Your task to perform on an android device: toggle notifications settings in the gmail app Image 0: 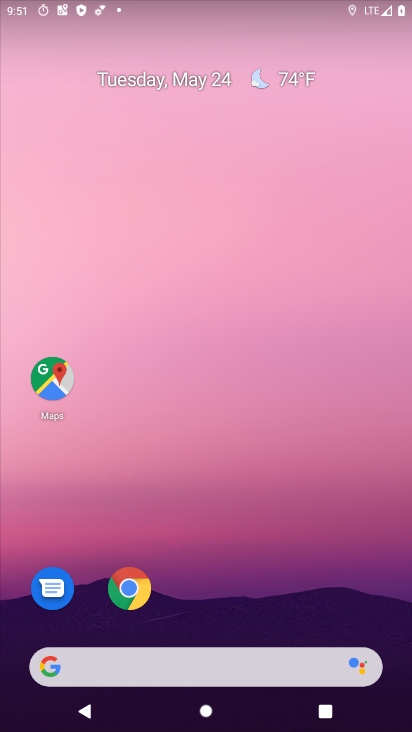
Step 0: drag from (204, 555) to (151, 24)
Your task to perform on an android device: toggle notifications settings in the gmail app Image 1: 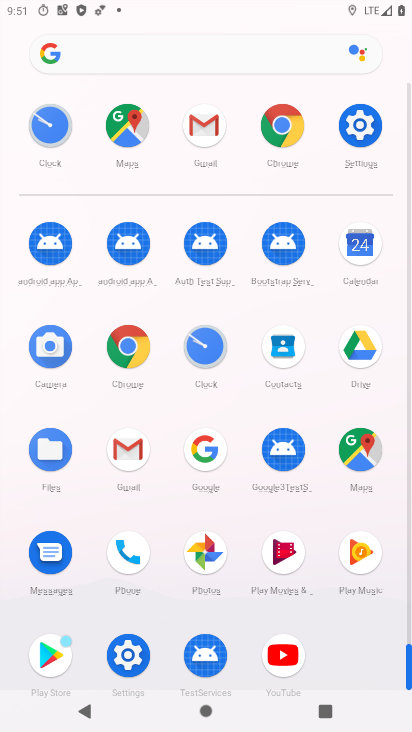
Step 1: drag from (5, 574) to (5, 240)
Your task to perform on an android device: toggle notifications settings in the gmail app Image 2: 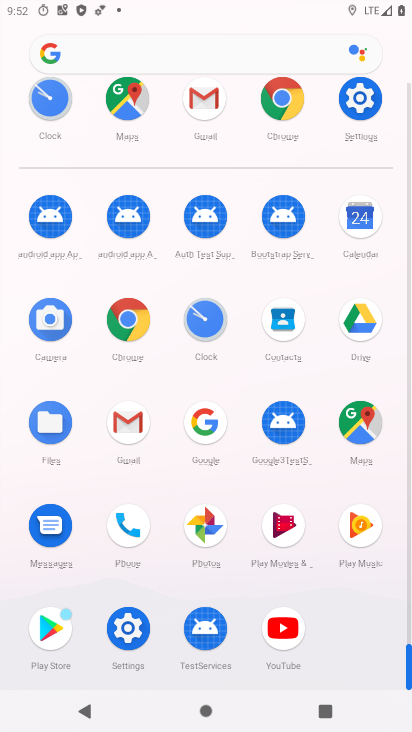
Step 2: click (125, 417)
Your task to perform on an android device: toggle notifications settings in the gmail app Image 3: 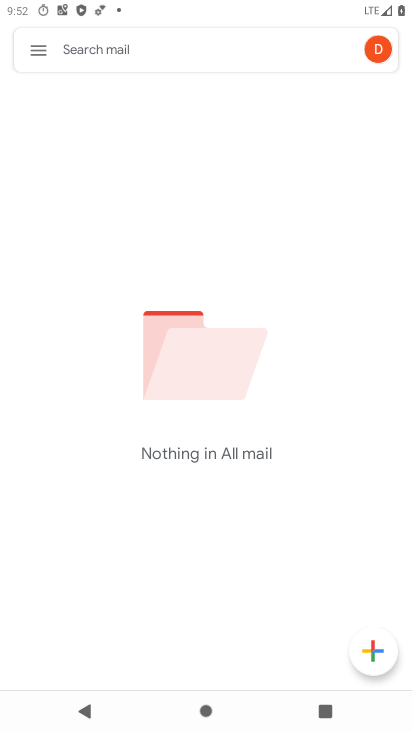
Step 3: click (42, 46)
Your task to perform on an android device: toggle notifications settings in the gmail app Image 4: 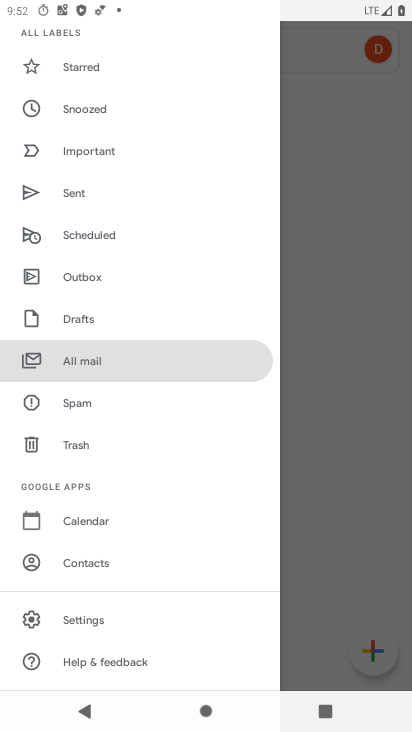
Step 4: click (90, 616)
Your task to perform on an android device: toggle notifications settings in the gmail app Image 5: 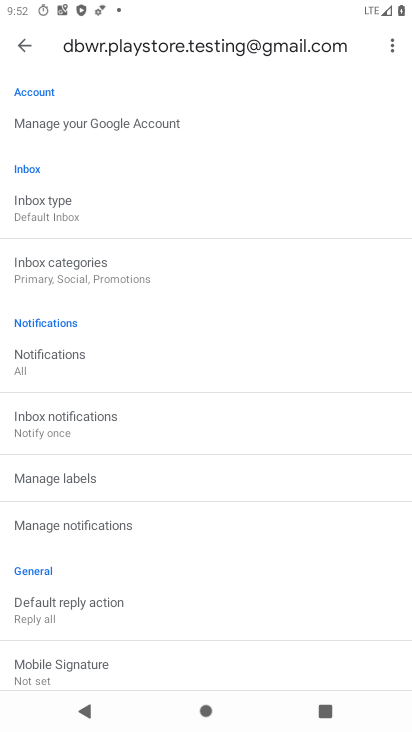
Step 5: click (85, 525)
Your task to perform on an android device: toggle notifications settings in the gmail app Image 6: 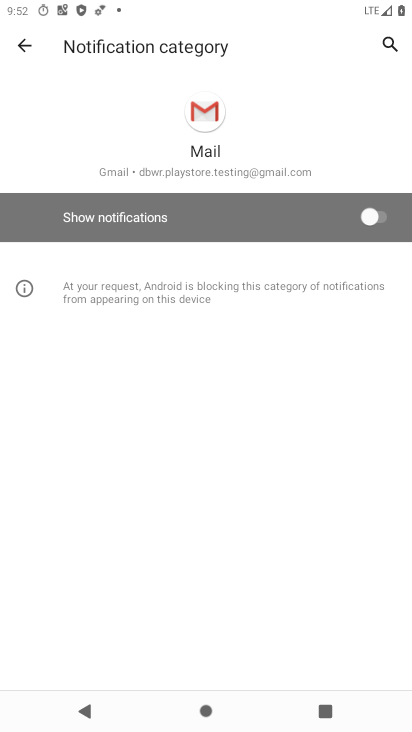
Step 6: click (372, 215)
Your task to perform on an android device: toggle notifications settings in the gmail app Image 7: 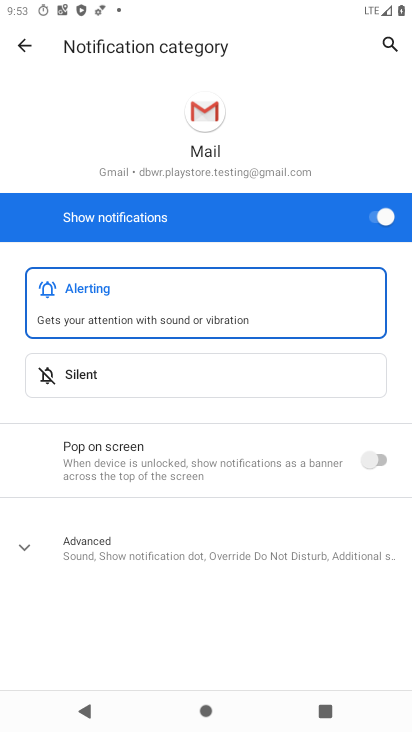
Step 7: task complete